Your task to perform on an android device: Open Google Chrome Image 0: 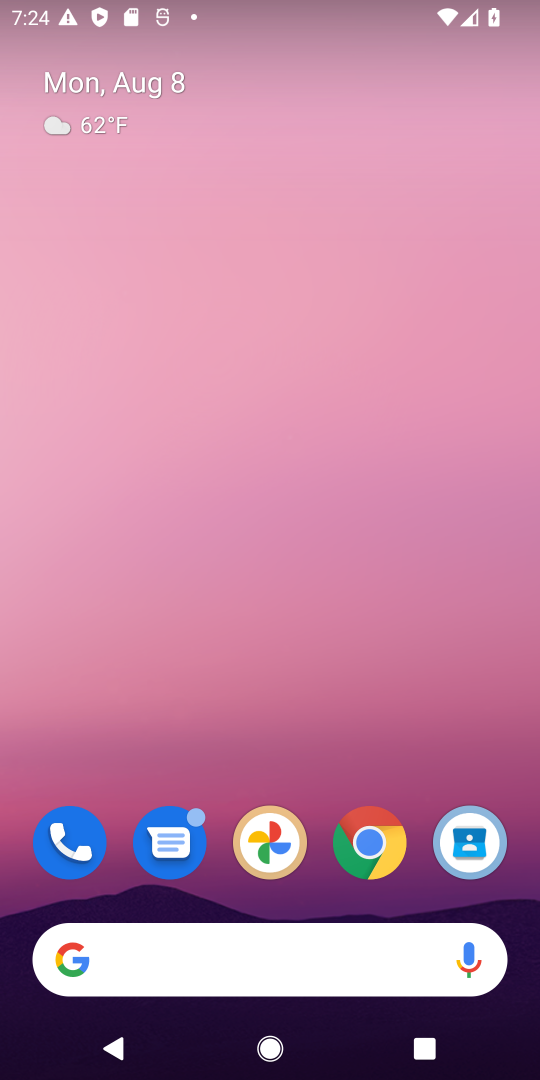
Step 0: click (378, 852)
Your task to perform on an android device: Open Google Chrome Image 1: 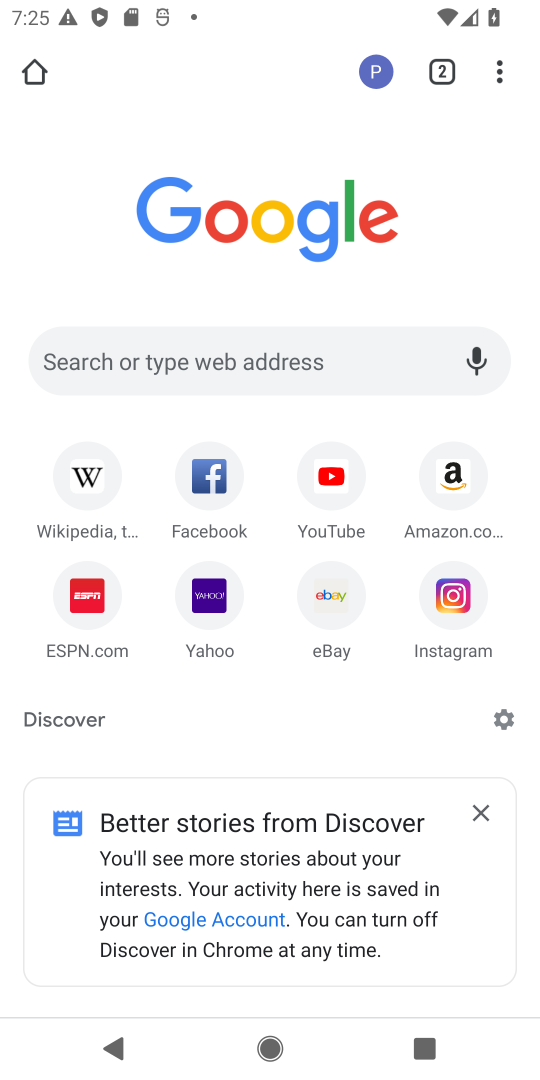
Step 1: task complete